Your task to perform on an android device: Open battery settings Image 0: 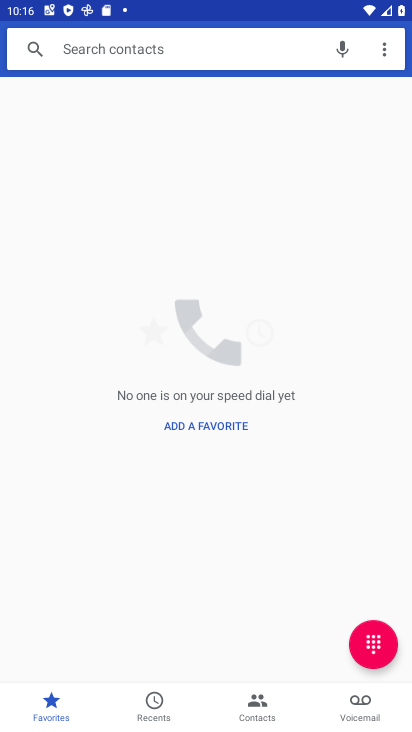
Step 0: press home button
Your task to perform on an android device: Open battery settings Image 1: 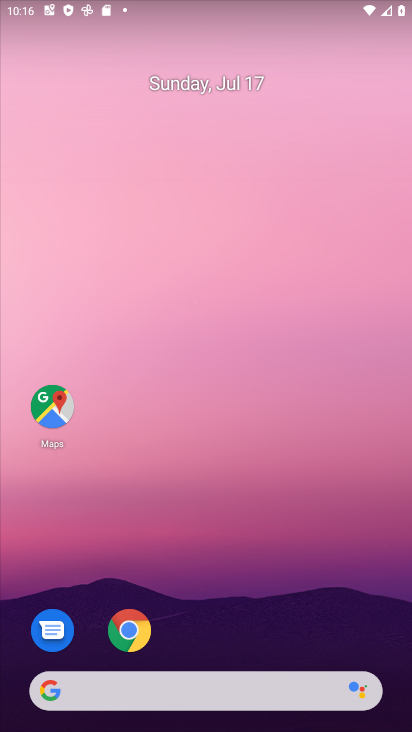
Step 1: drag from (268, 623) to (218, 93)
Your task to perform on an android device: Open battery settings Image 2: 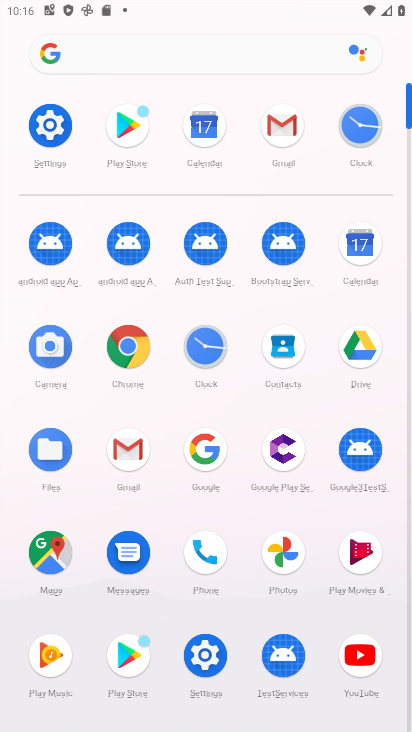
Step 2: click (65, 155)
Your task to perform on an android device: Open battery settings Image 3: 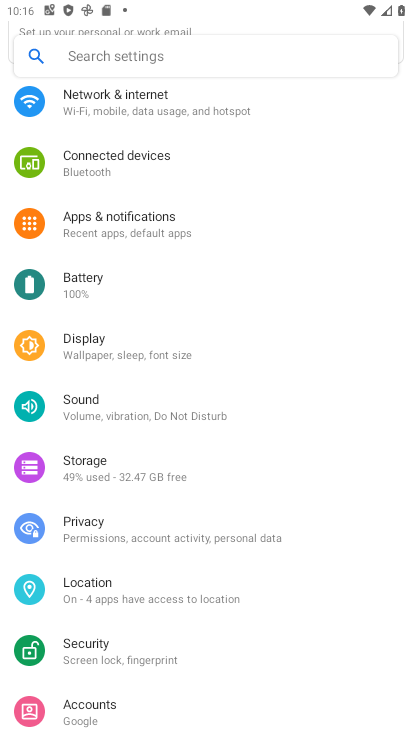
Step 3: click (103, 303)
Your task to perform on an android device: Open battery settings Image 4: 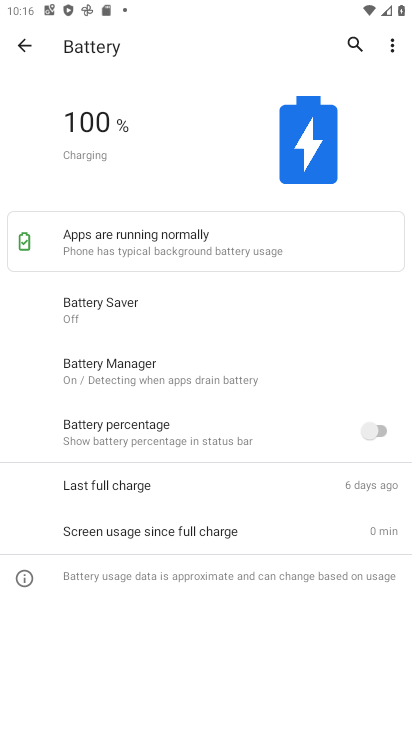
Step 4: task complete